Your task to perform on an android device: Show the shopping cart on newegg.com. Image 0: 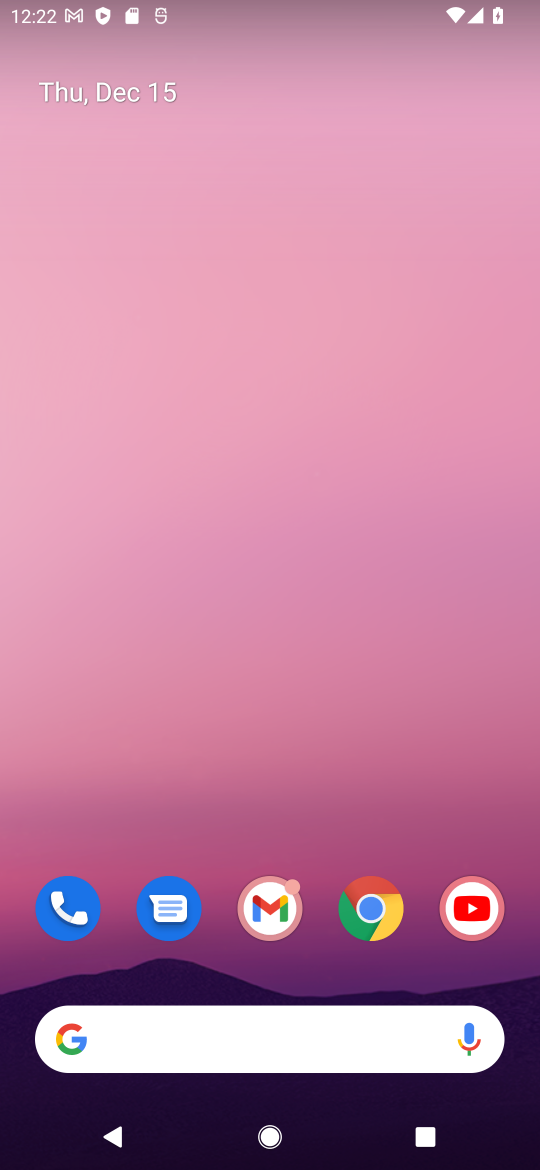
Step 0: click (378, 917)
Your task to perform on an android device: Show the shopping cart on newegg.com. Image 1: 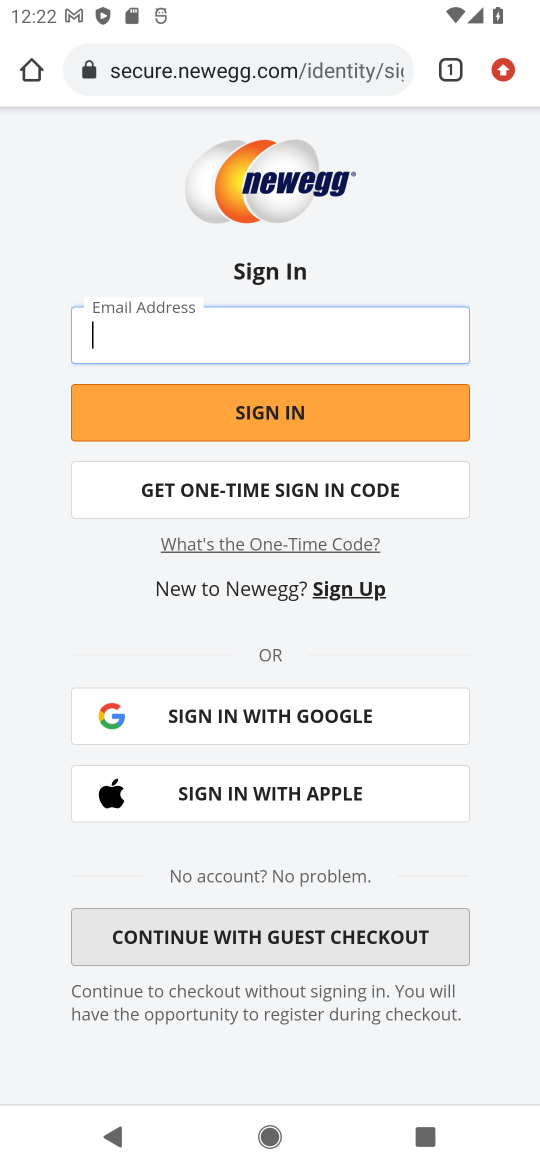
Step 1: task complete